Your task to perform on an android device: Go to display settings Image 0: 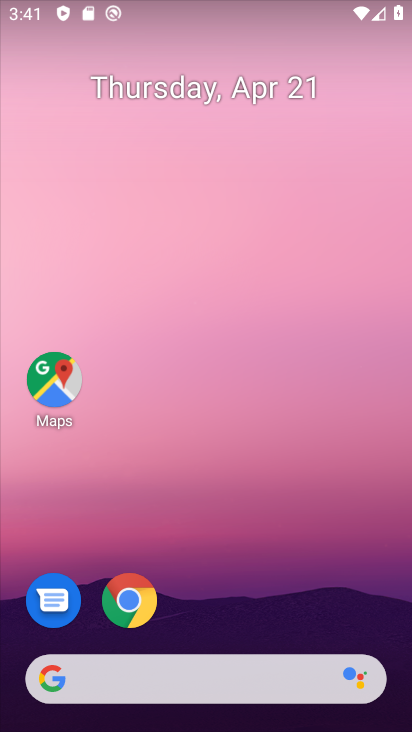
Step 0: drag from (205, 651) to (368, 64)
Your task to perform on an android device: Go to display settings Image 1: 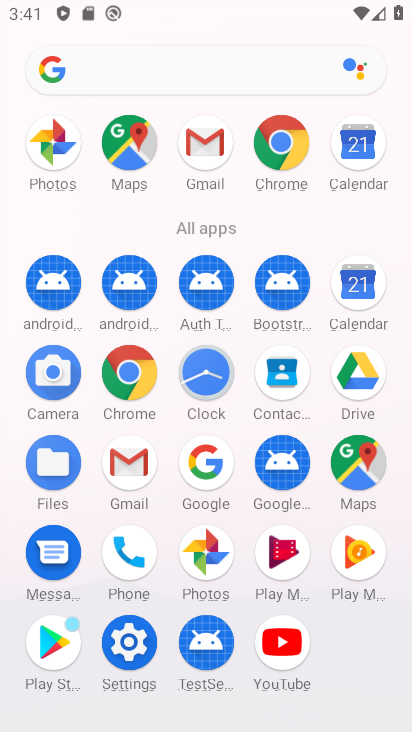
Step 1: click (138, 648)
Your task to perform on an android device: Go to display settings Image 2: 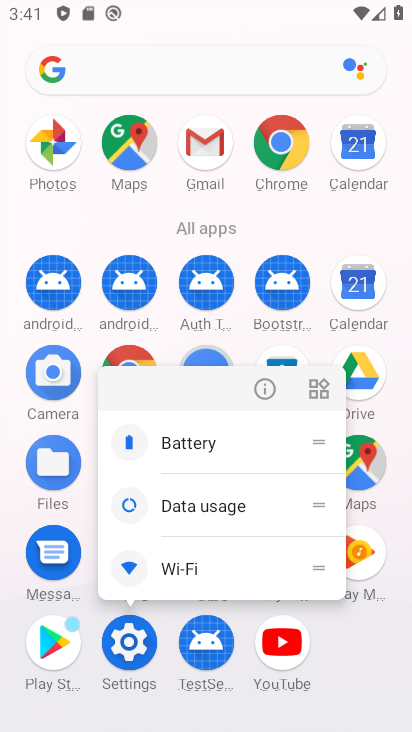
Step 2: click (138, 643)
Your task to perform on an android device: Go to display settings Image 3: 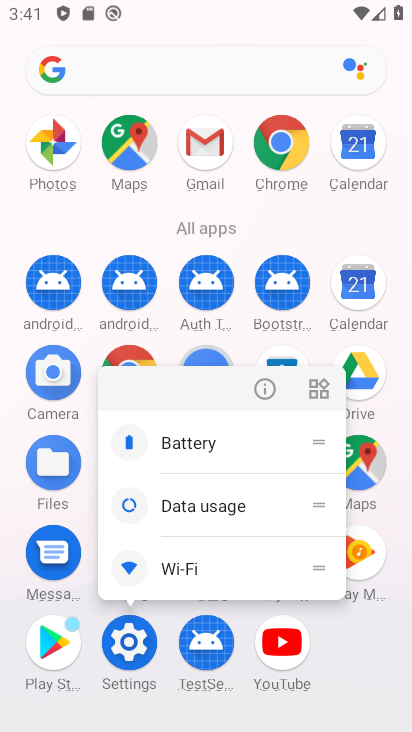
Step 3: click (134, 636)
Your task to perform on an android device: Go to display settings Image 4: 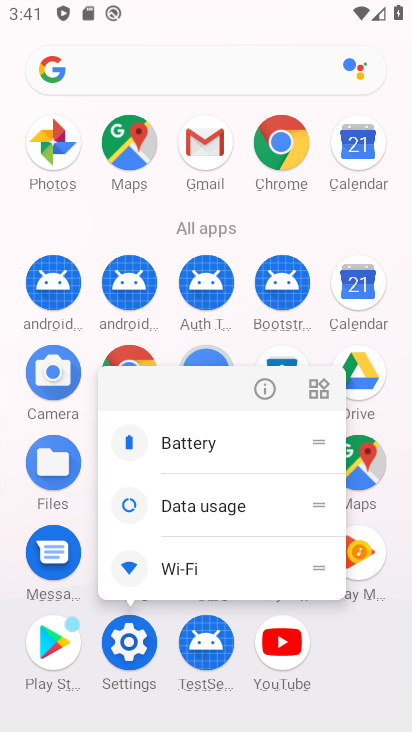
Step 4: click (134, 636)
Your task to perform on an android device: Go to display settings Image 5: 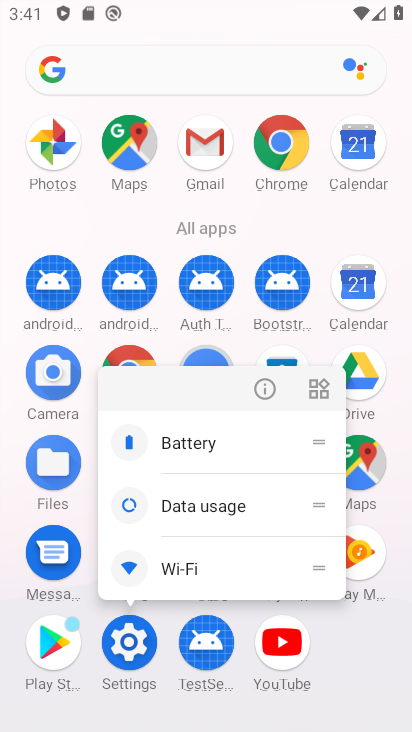
Step 5: click (128, 643)
Your task to perform on an android device: Go to display settings Image 6: 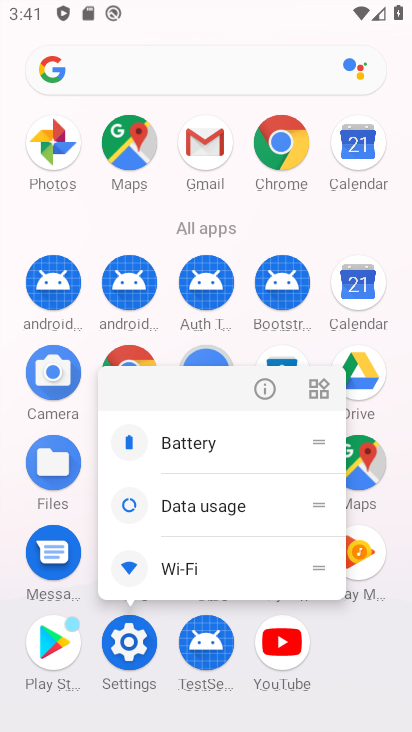
Step 6: click (136, 643)
Your task to perform on an android device: Go to display settings Image 7: 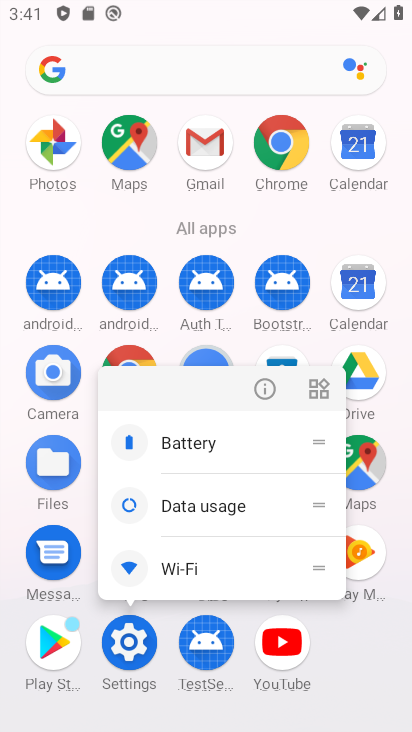
Step 7: click (136, 642)
Your task to perform on an android device: Go to display settings Image 8: 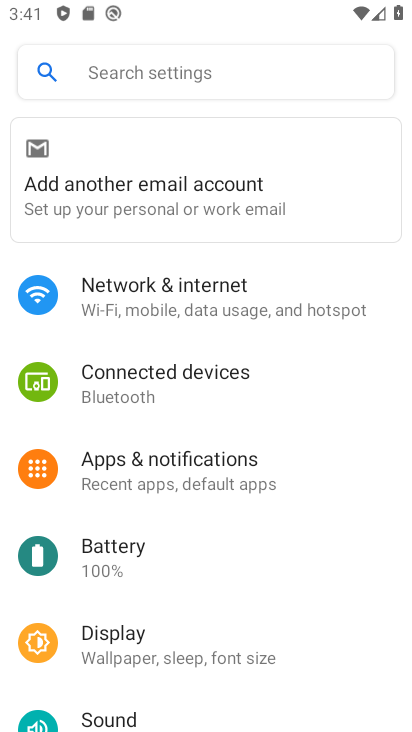
Step 8: drag from (175, 642) to (325, 223)
Your task to perform on an android device: Go to display settings Image 9: 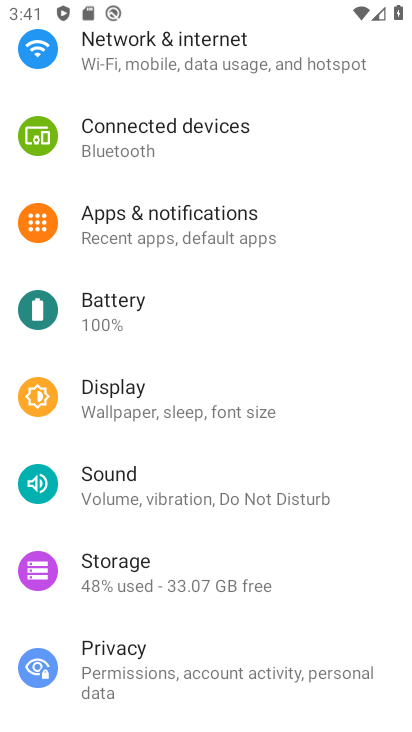
Step 9: click (182, 397)
Your task to perform on an android device: Go to display settings Image 10: 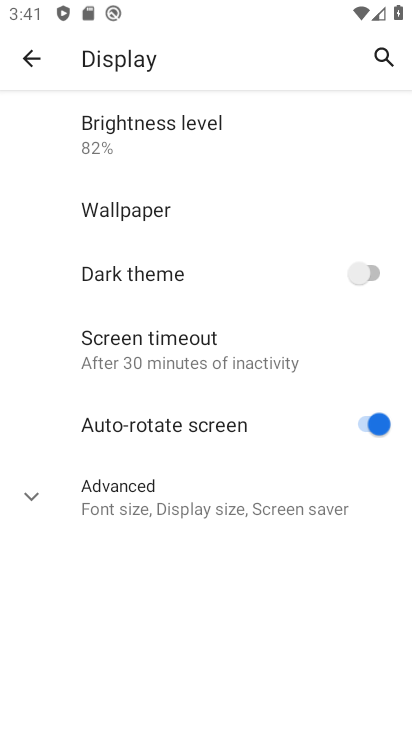
Step 10: task complete